Your task to perform on an android device: Go to sound settings Image 0: 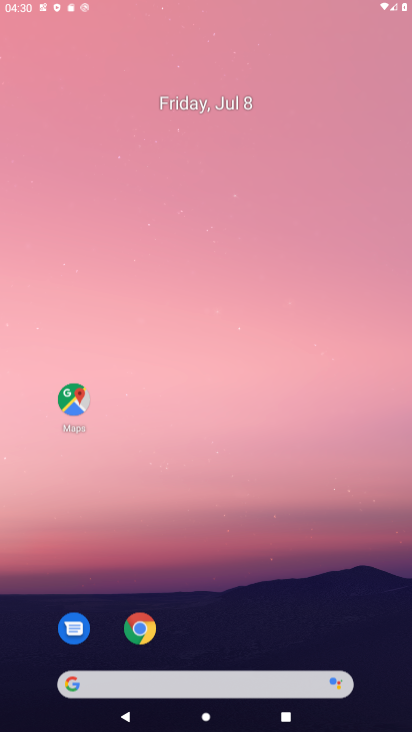
Step 0: click (260, 40)
Your task to perform on an android device: Go to sound settings Image 1: 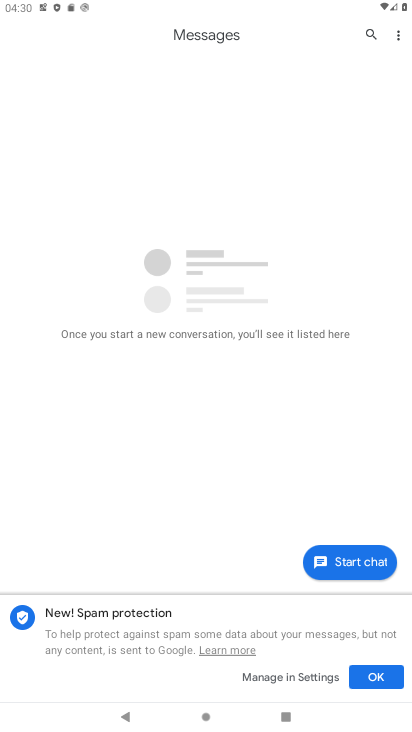
Step 1: press home button
Your task to perform on an android device: Go to sound settings Image 2: 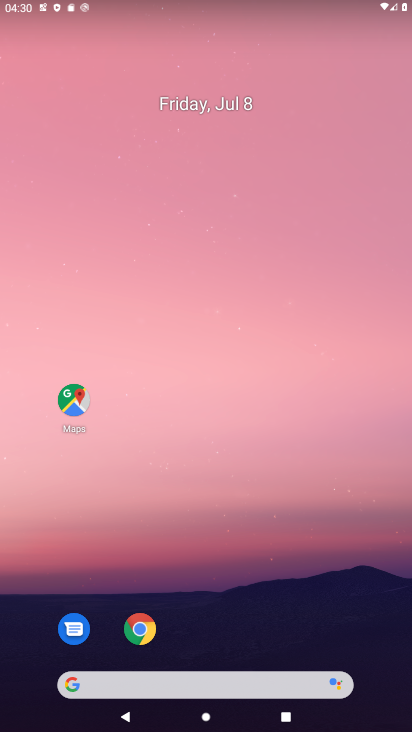
Step 2: drag from (232, 723) to (240, 26)
Your task to perform on an android device: Go to sound settings Image 3: 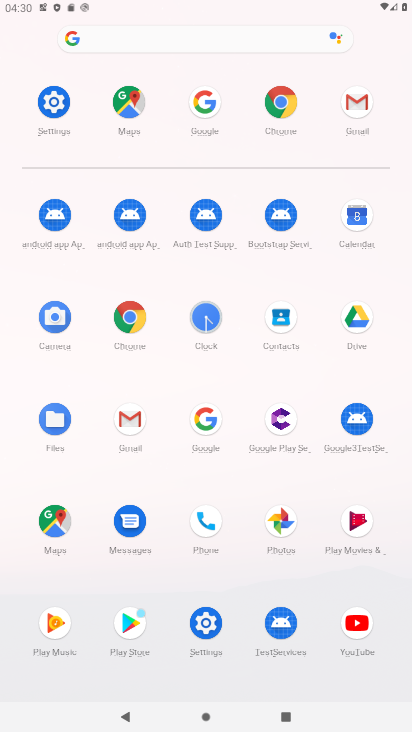
Step 3: click (53, 106)
Your task to perform on an android device: Go to sound settings Image 4: 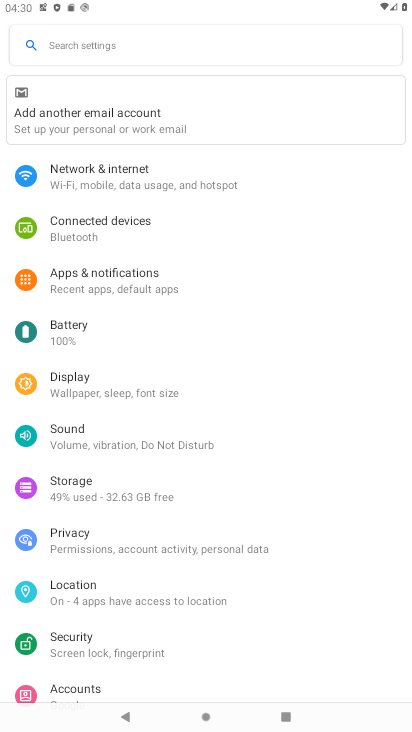
Step 4: click (72, 436)
Your task to perform on an android device: Go to sound settings Image 5: 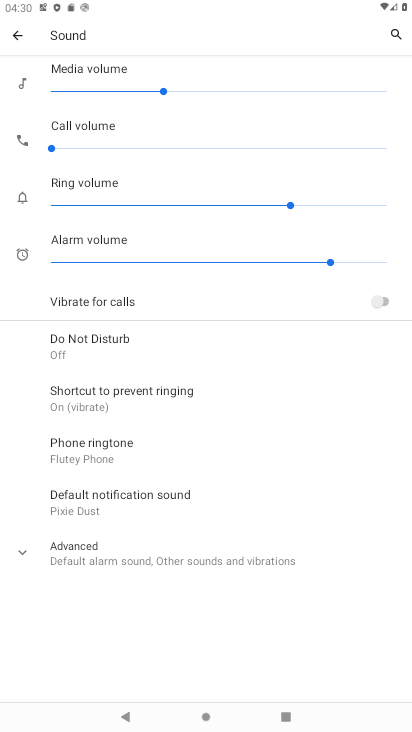
Step 5: task complete